Your task to perform on an android device: Go to network settings Image 0: 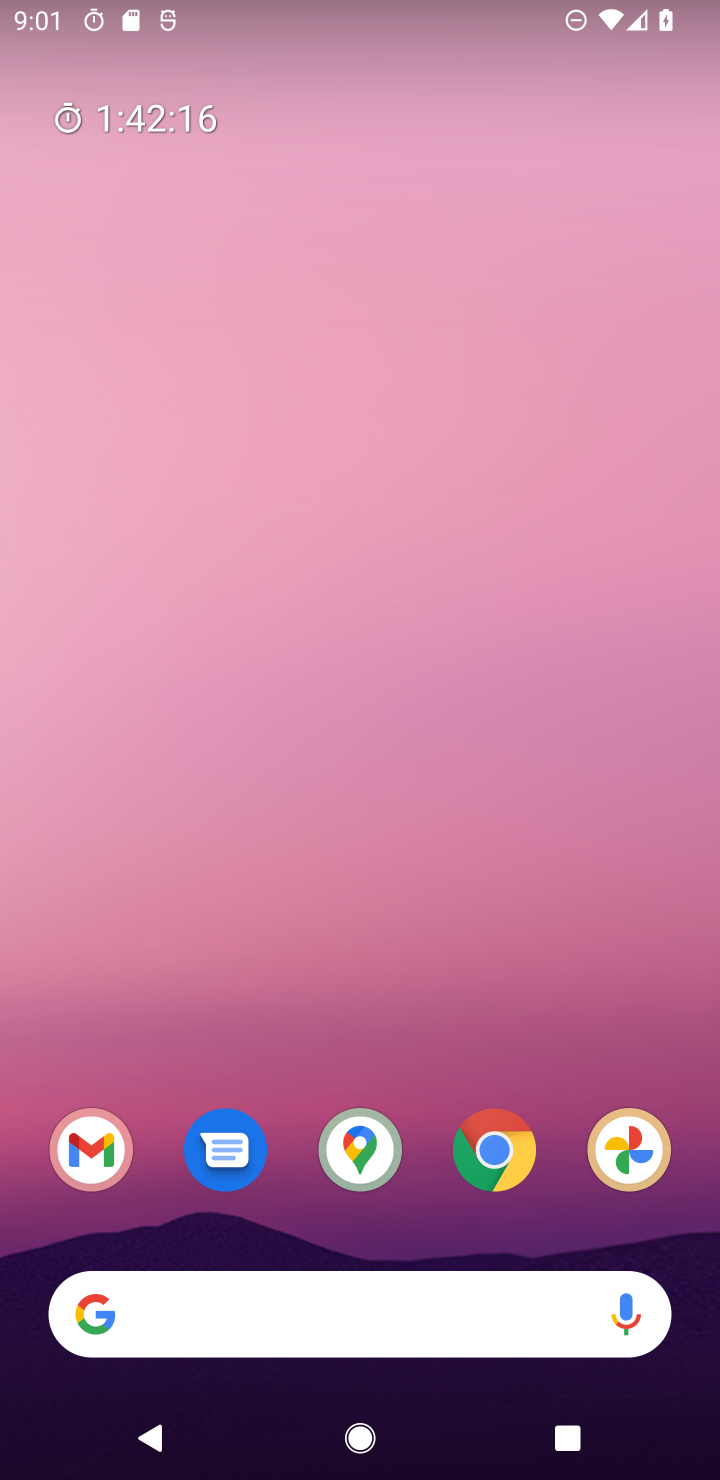
Step 0: drag from (401, 1202) to (556, 1)
Your task to perform on an android device: Go to network settings Image 1: 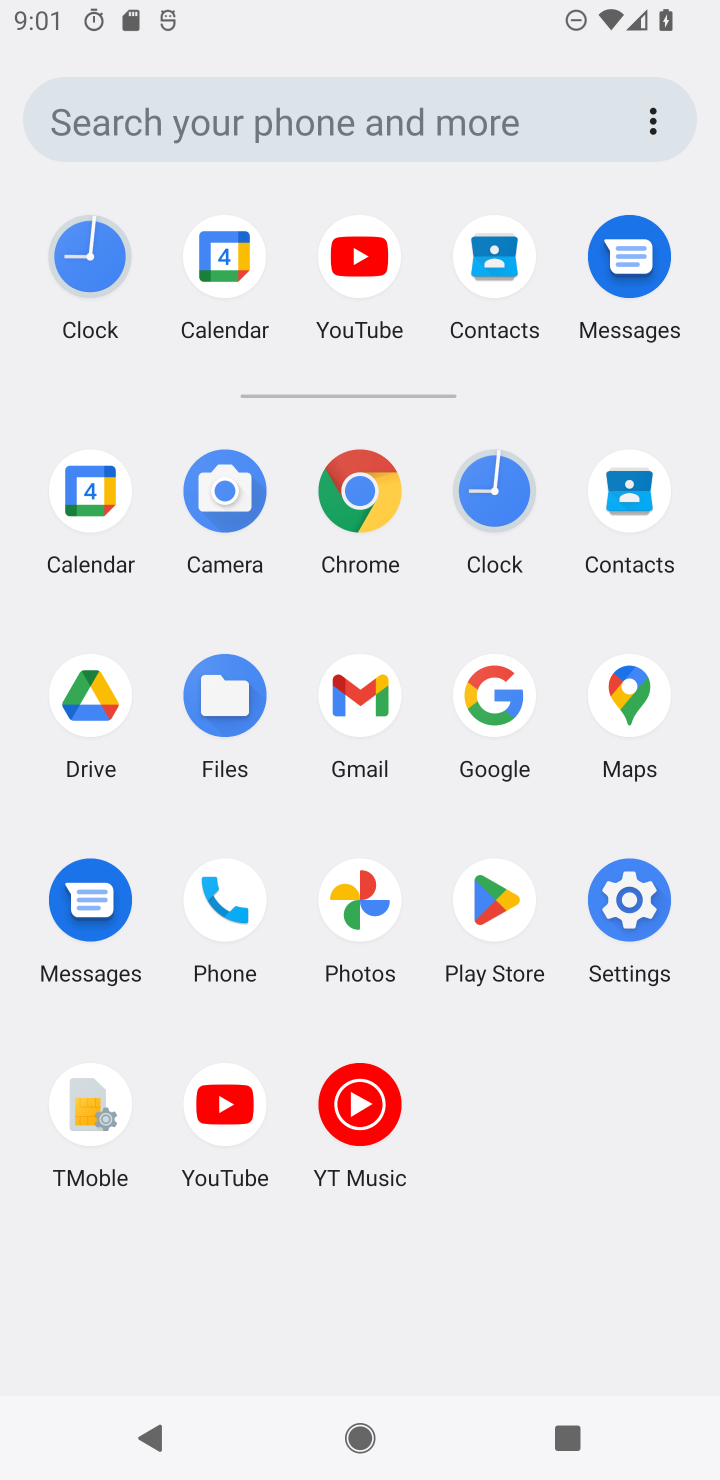
Step 1: click (363, 889)
Your task to perform on an android device: Go to network settings Image 2: 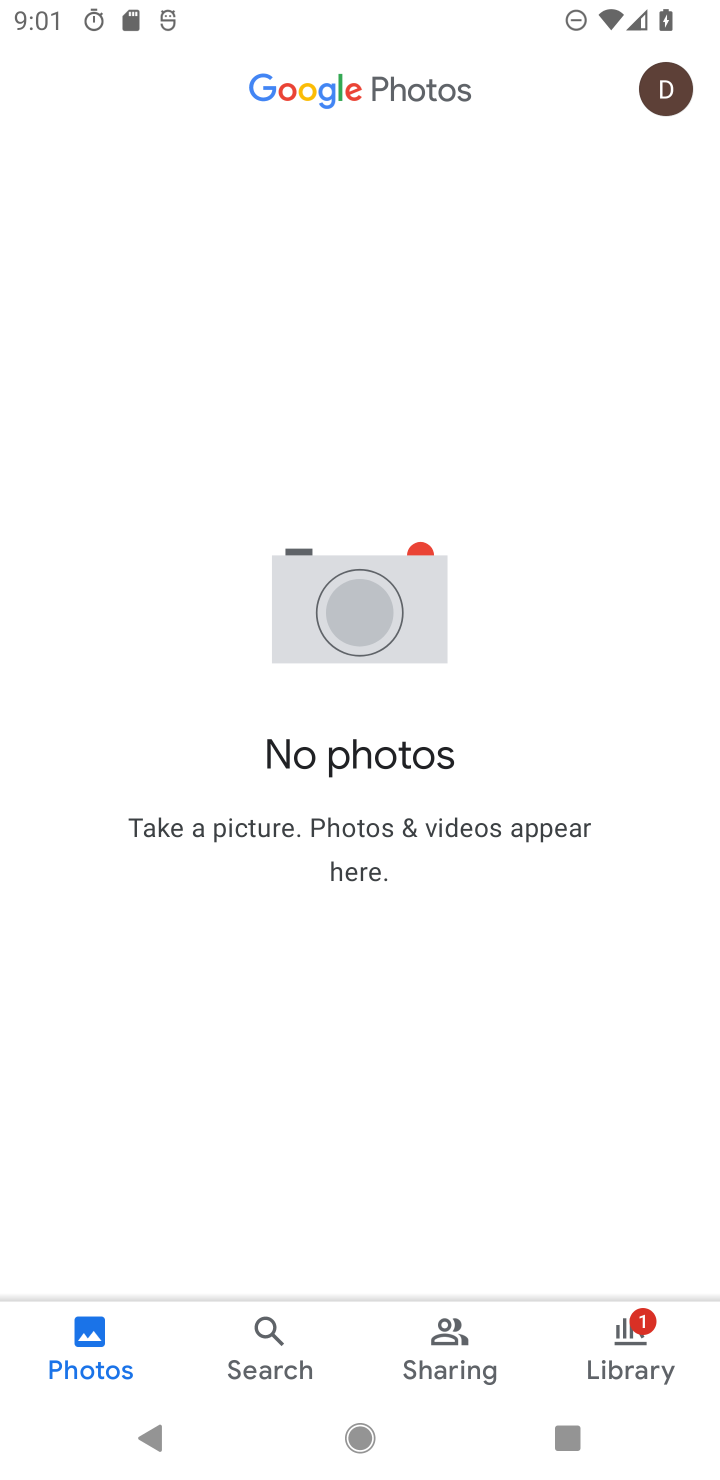
Step 2: press home button
Your task to perform on an android device: Go to network settings Image 3: 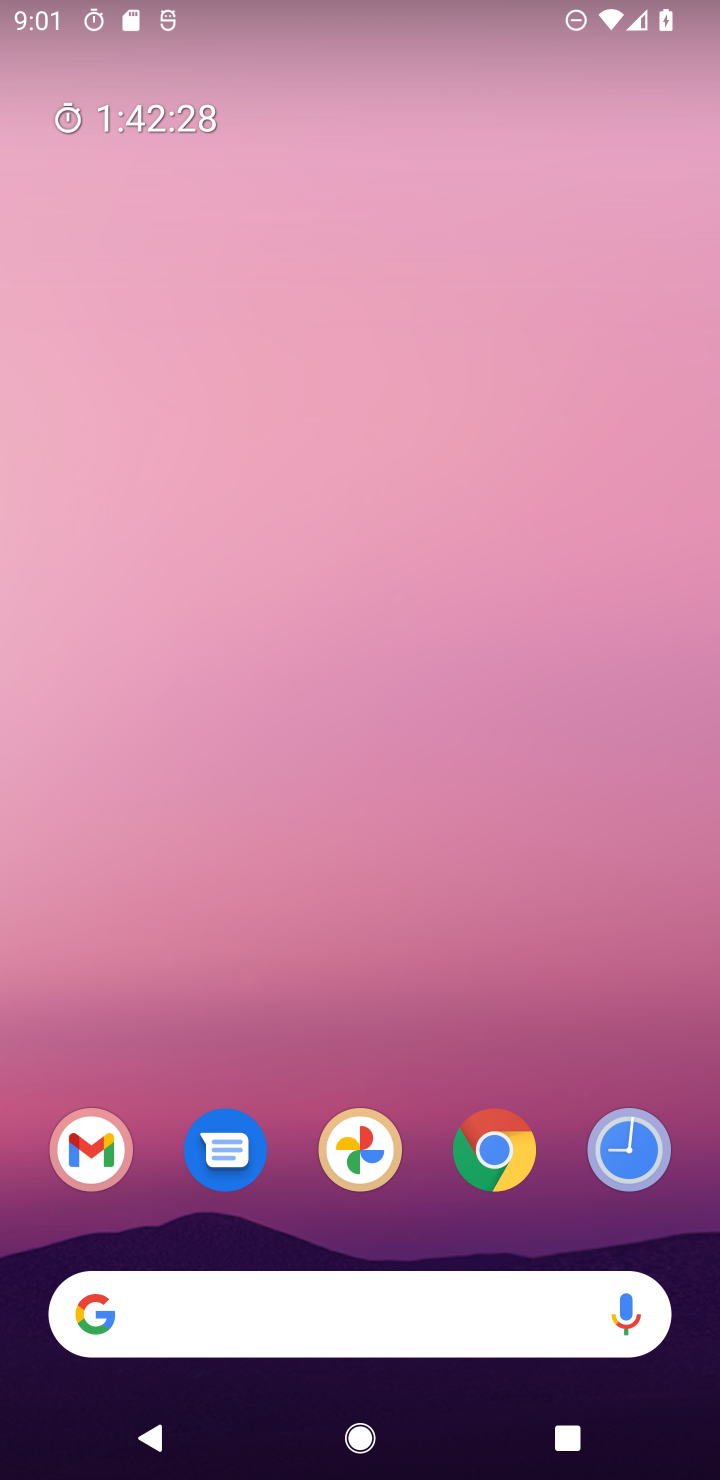
Step 3: drag from (388, 1361) to (594, 6)
Your task to perform on an android device: Go to network settings Image 4: 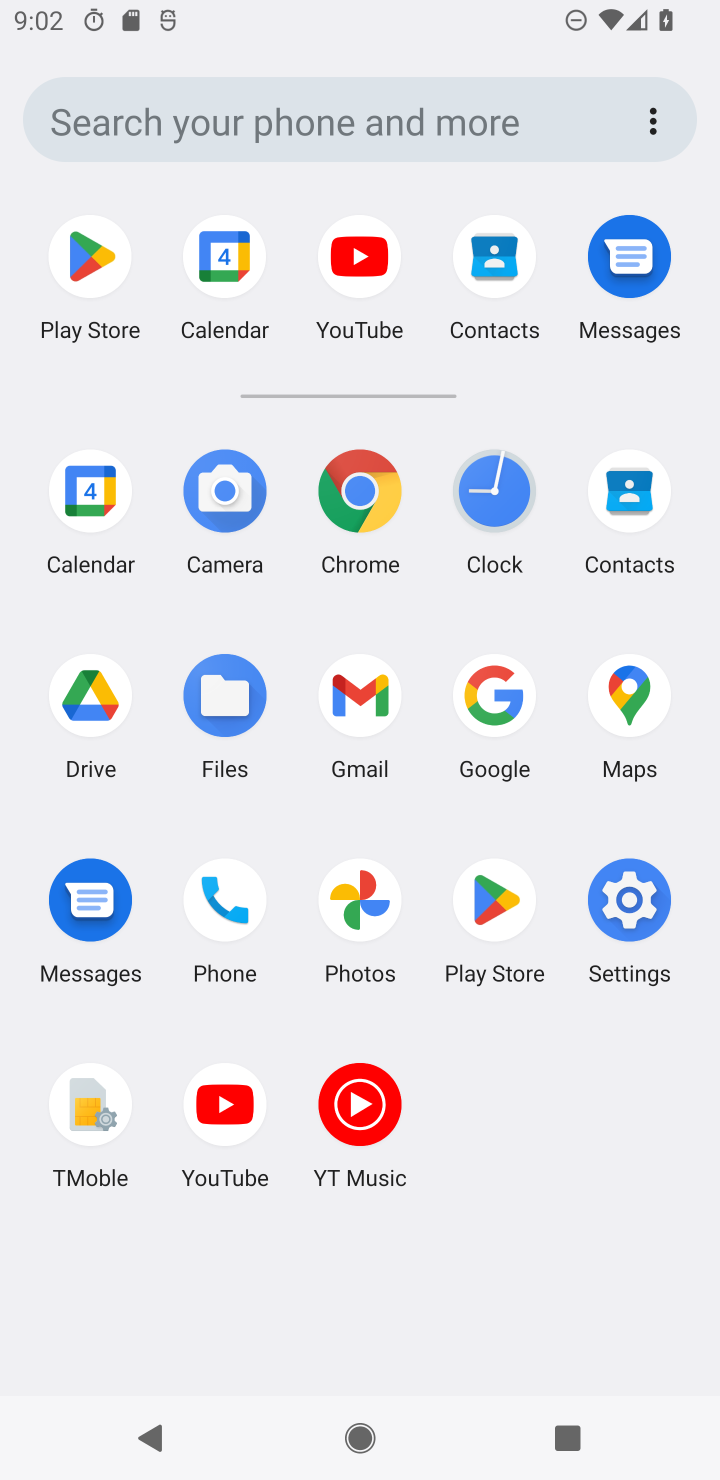
Step 4: click (625, 892)
Your task to perform on an android device: Go to network settings Image 5: 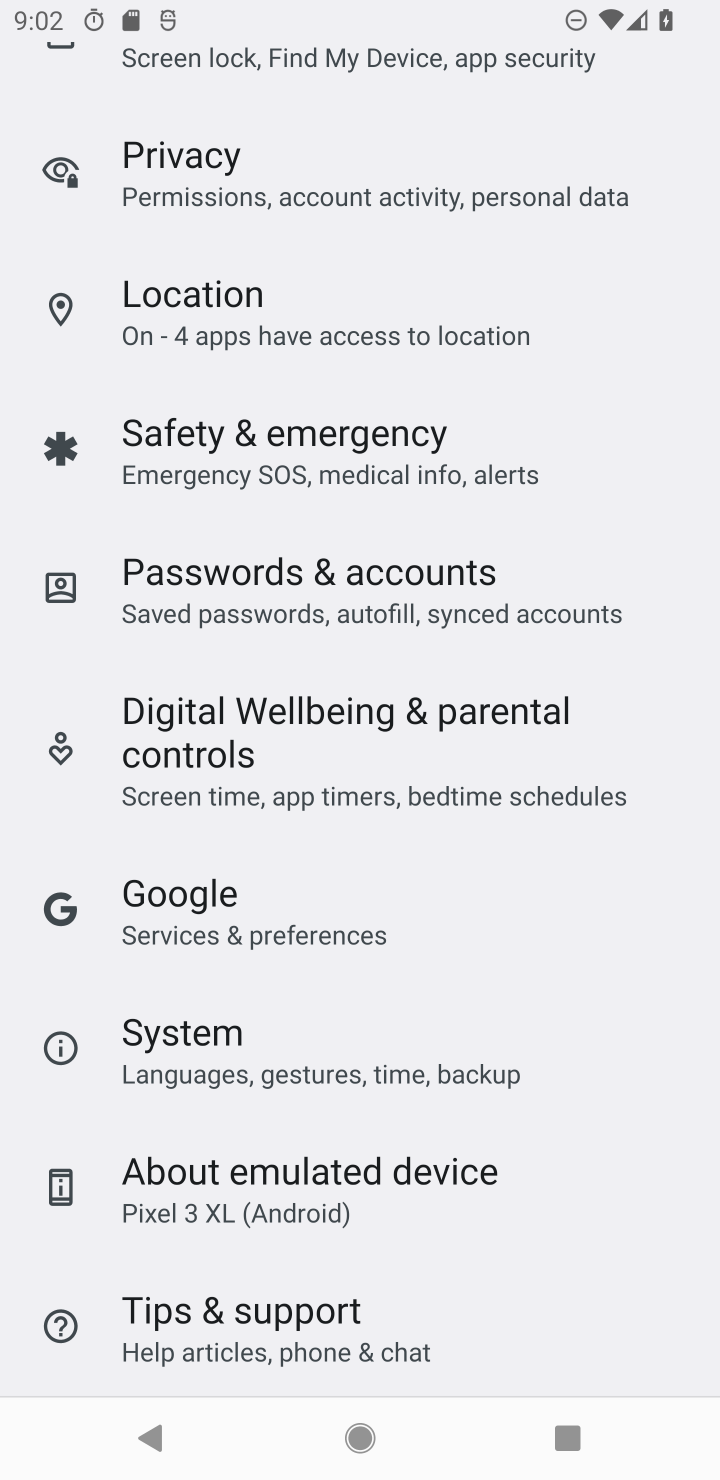
Step 5: drag from (327, 288) to (455, 1348)
Your task to perform on an android device: Go to network settings Image 6: 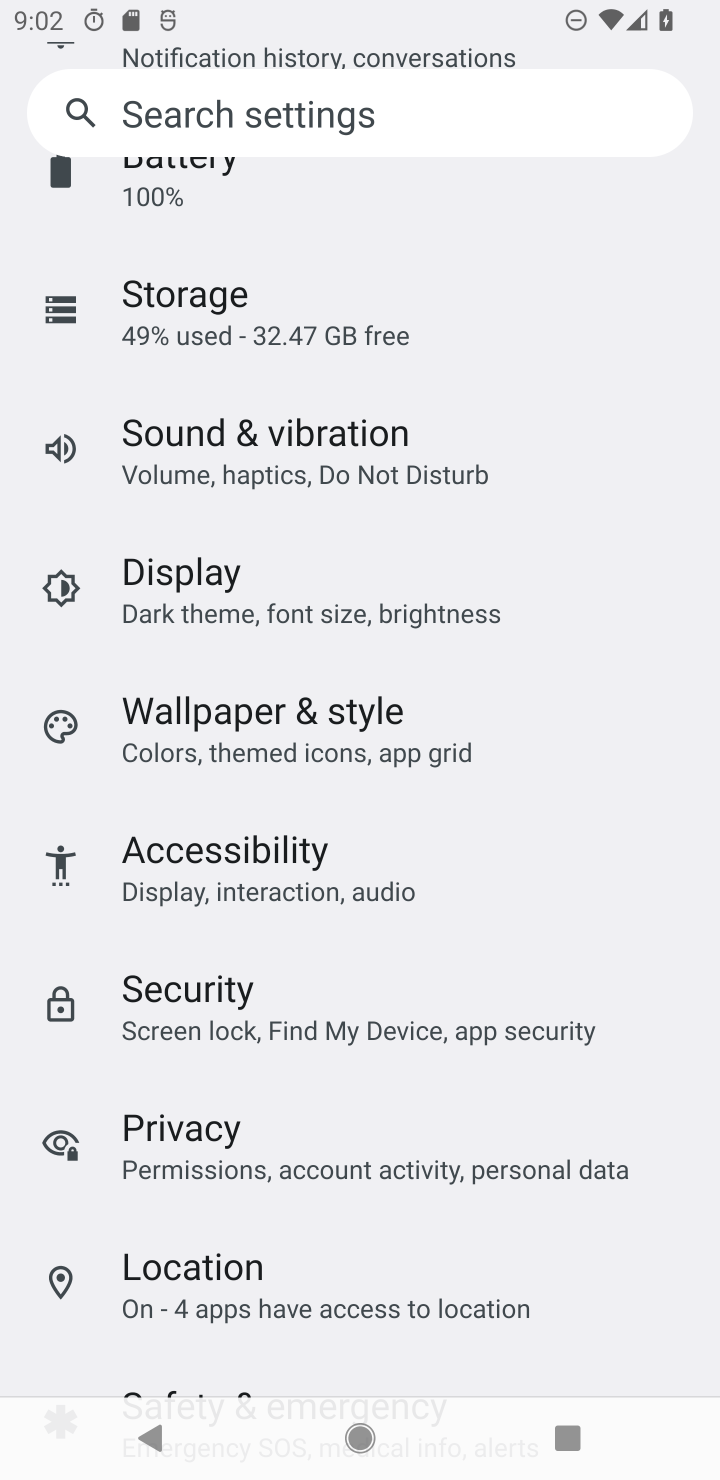
Step 6: drag from (333, 316) to (425, 1455)
Your task to perform on an android device: Go to network settings Image 7: 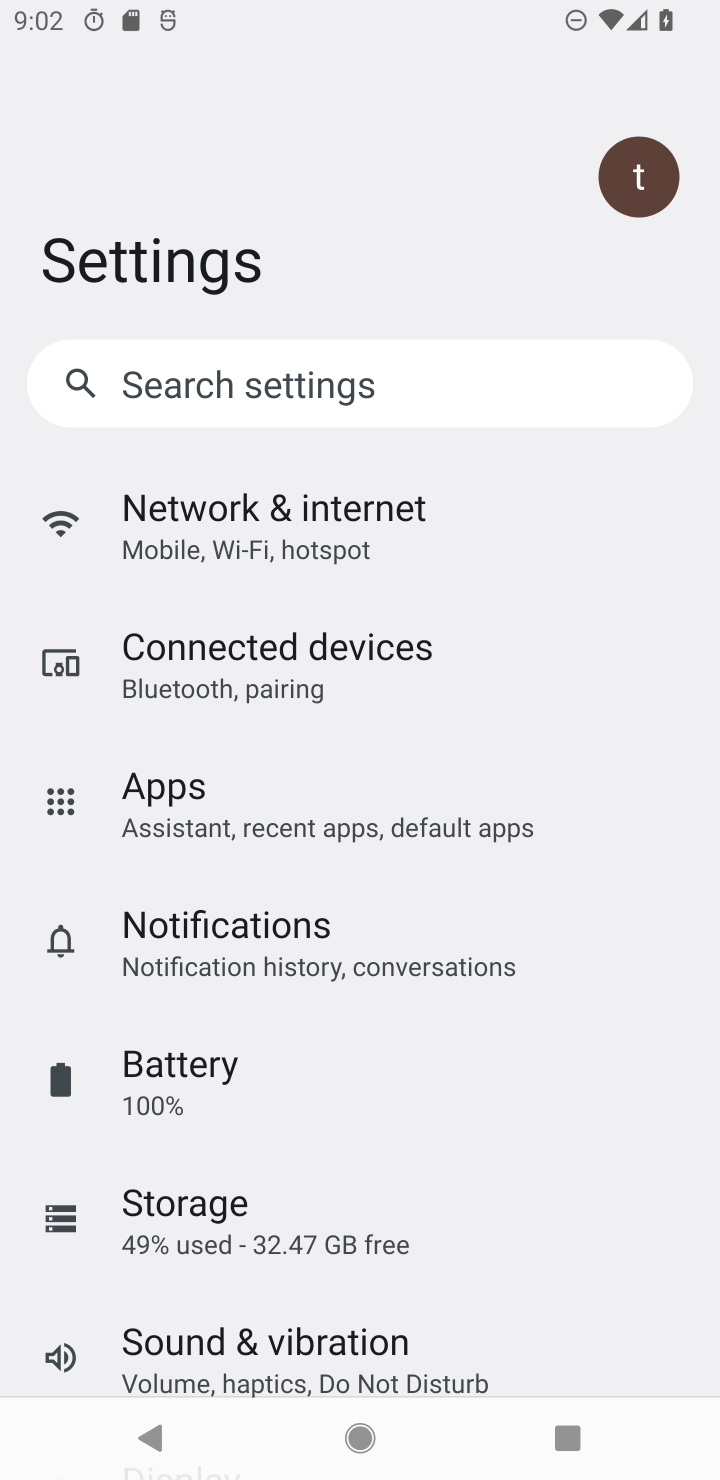
Step 7: click (301, 525)
Your task to perform on an android device: Go to network settings Image 8: 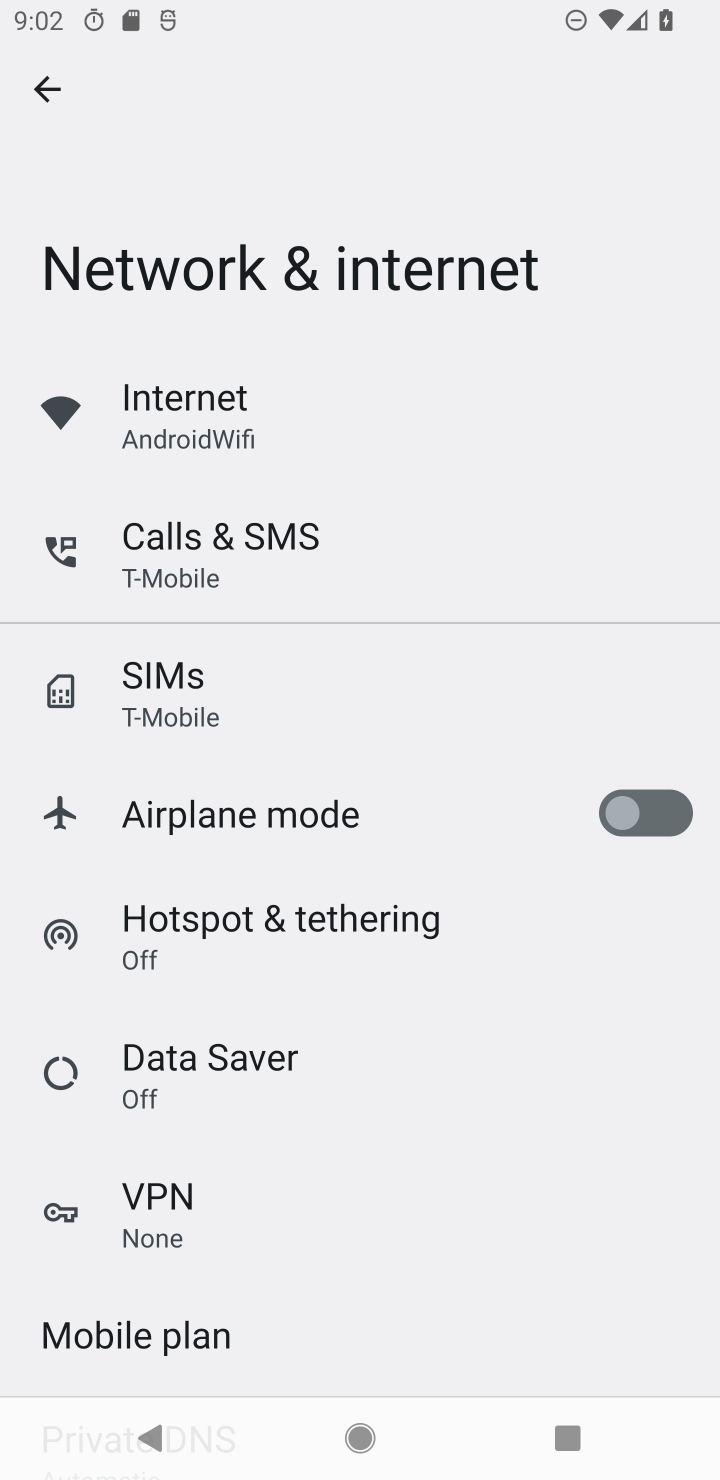
Step 8: task complete